Your task to perform on an android device: Add "macbook air" to the cart on amazon Image 0: 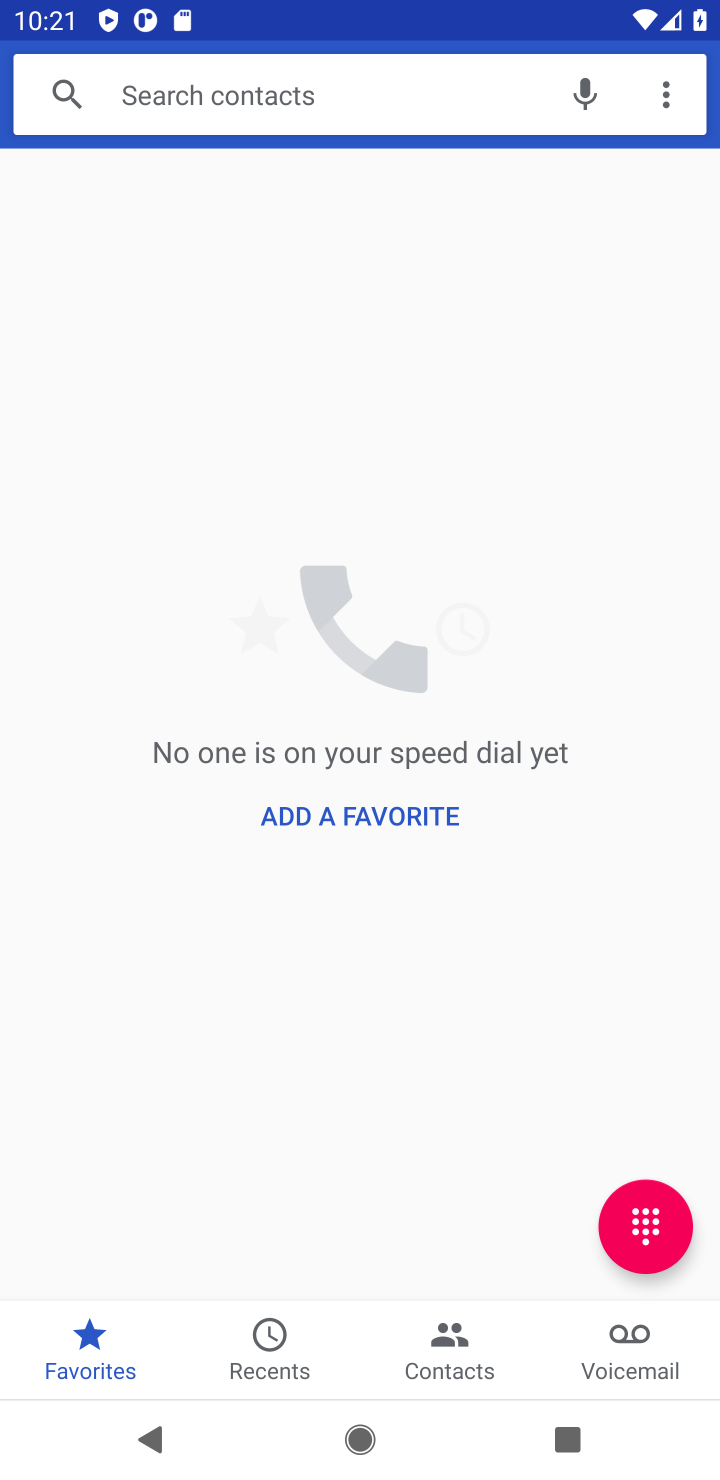
Step 0: press home button
Your task to perform on an android device: Add "macbook air" to the cart on amazon Image 1: 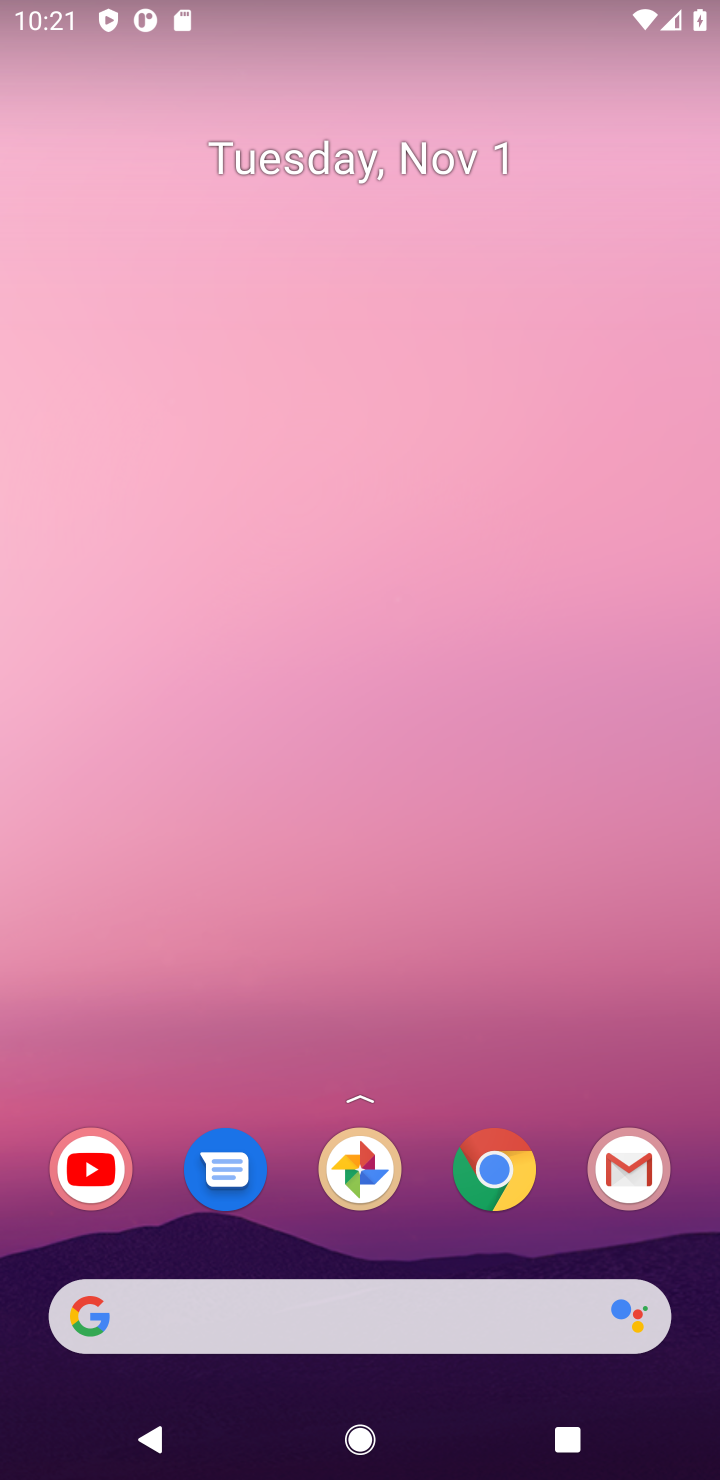
Step 1: click (486, 1177)
Your task to perform on an android device: Add "macbook air" to the cart on amazon Image 2: 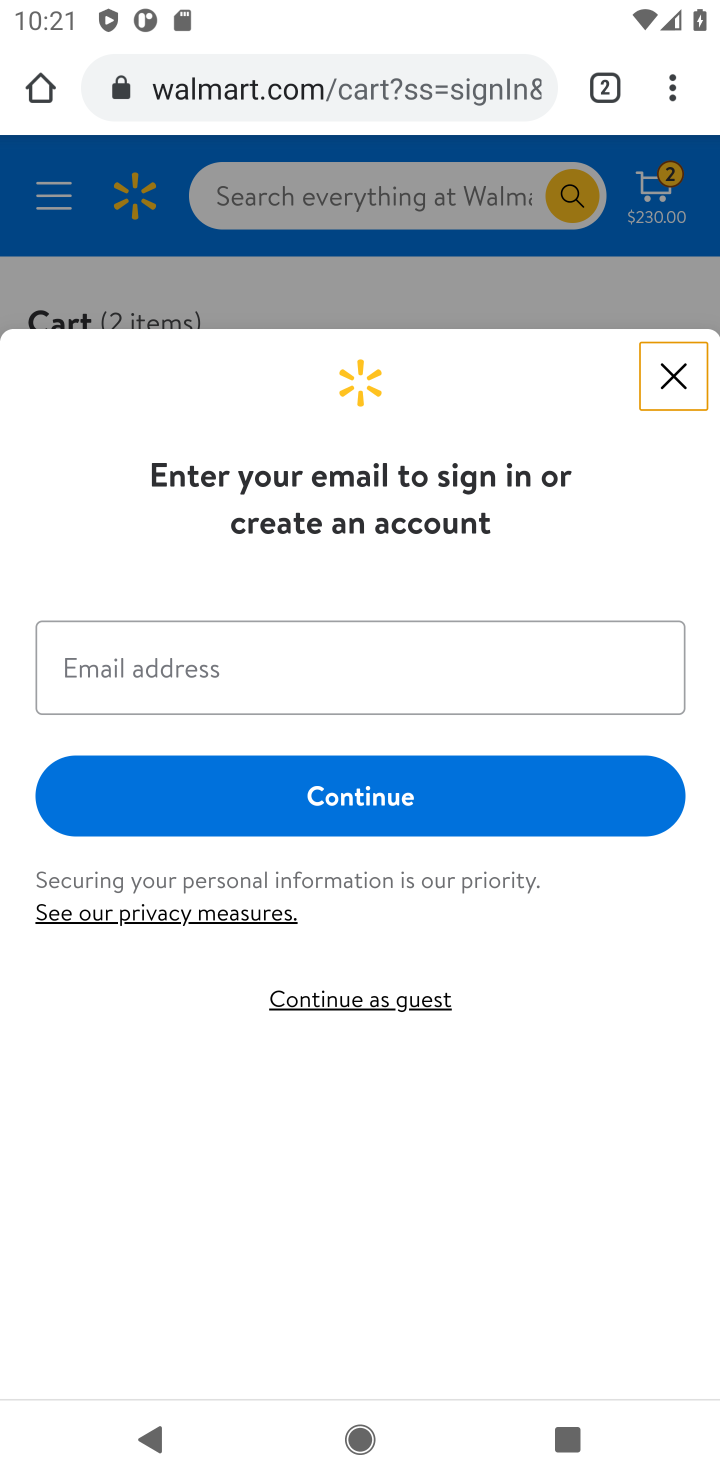
Step 2: click (401, 72)
Your task to perform on an android device: Add "macbook air" to the cart on amazon Image 3: 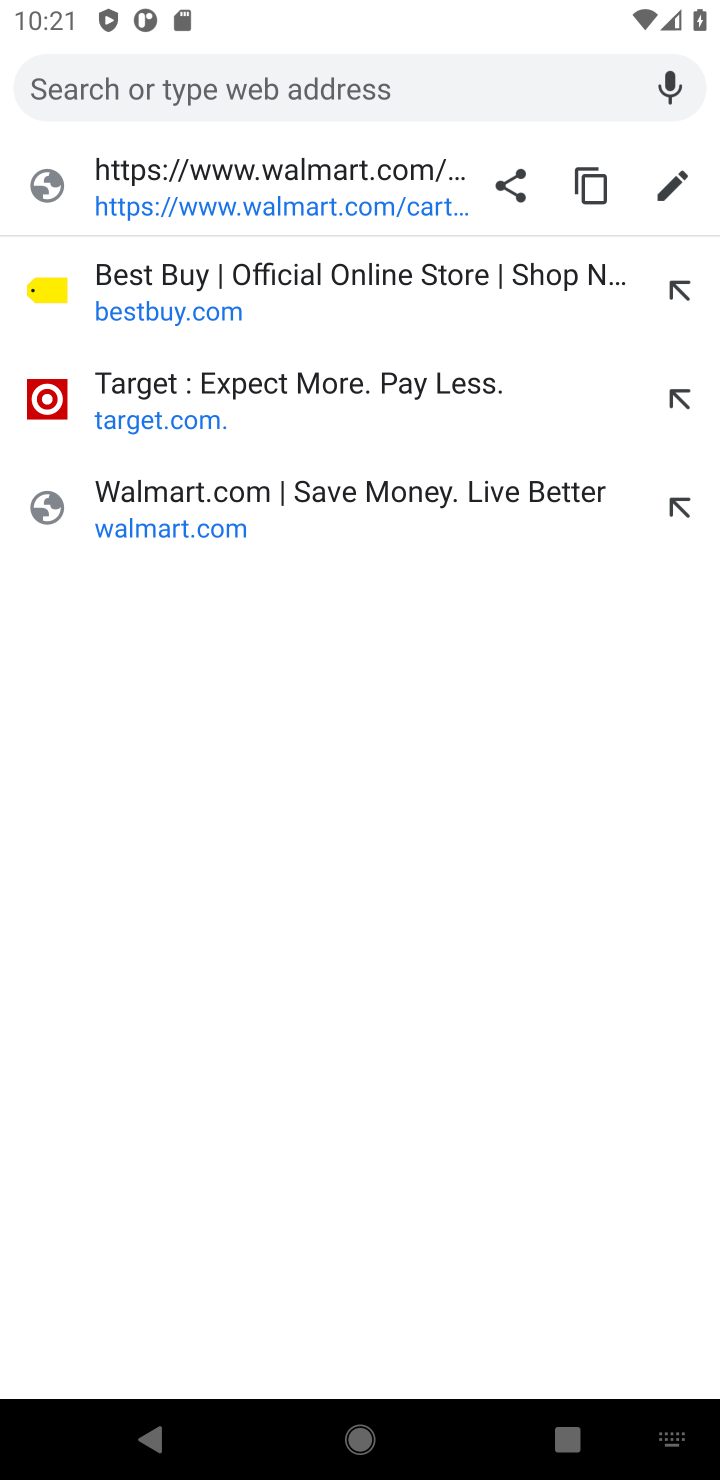
Step 3: type "amazon"
Your task to perform on an android device: Add "macbook air" to the cart on amazon Image 4: 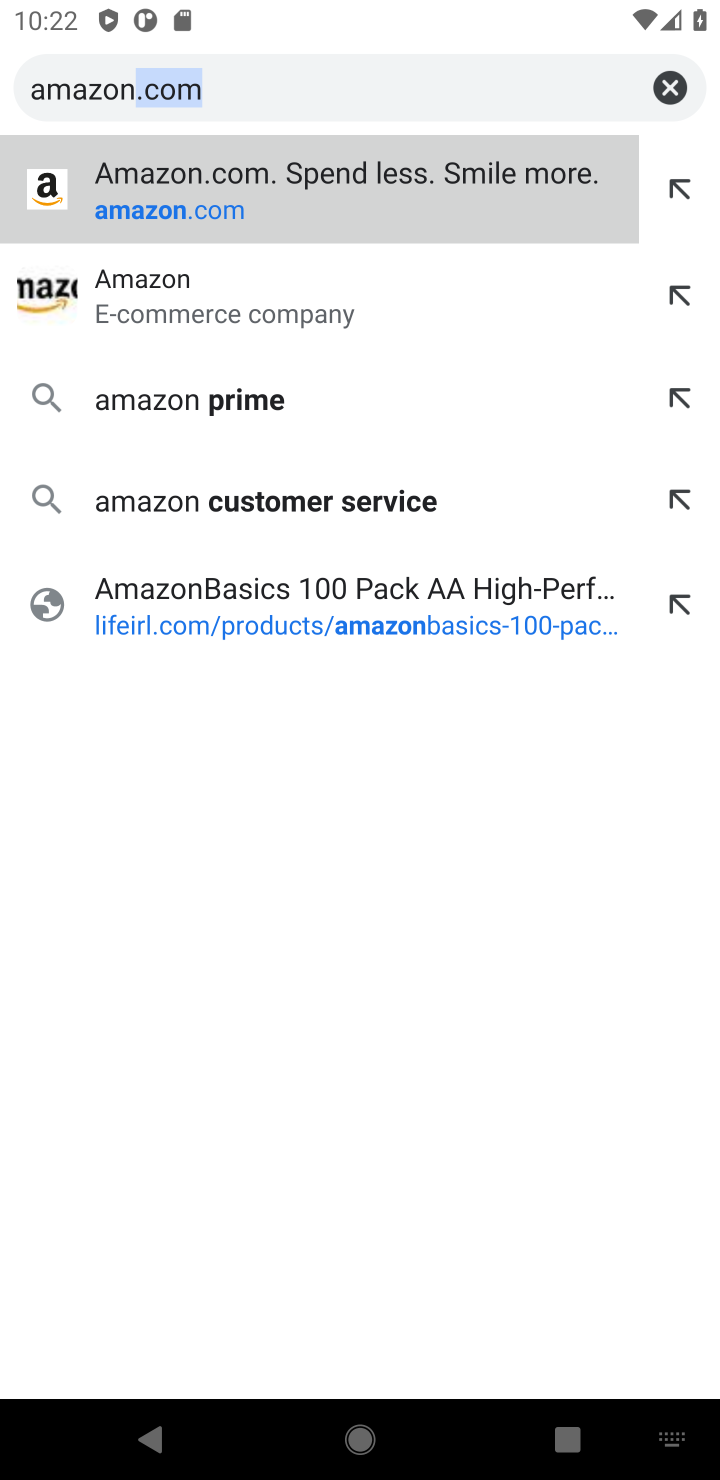
Step 4: click (233, 88)
Your task to perform on an android device: Add "macbook air" to the cart on amazon Image 5: 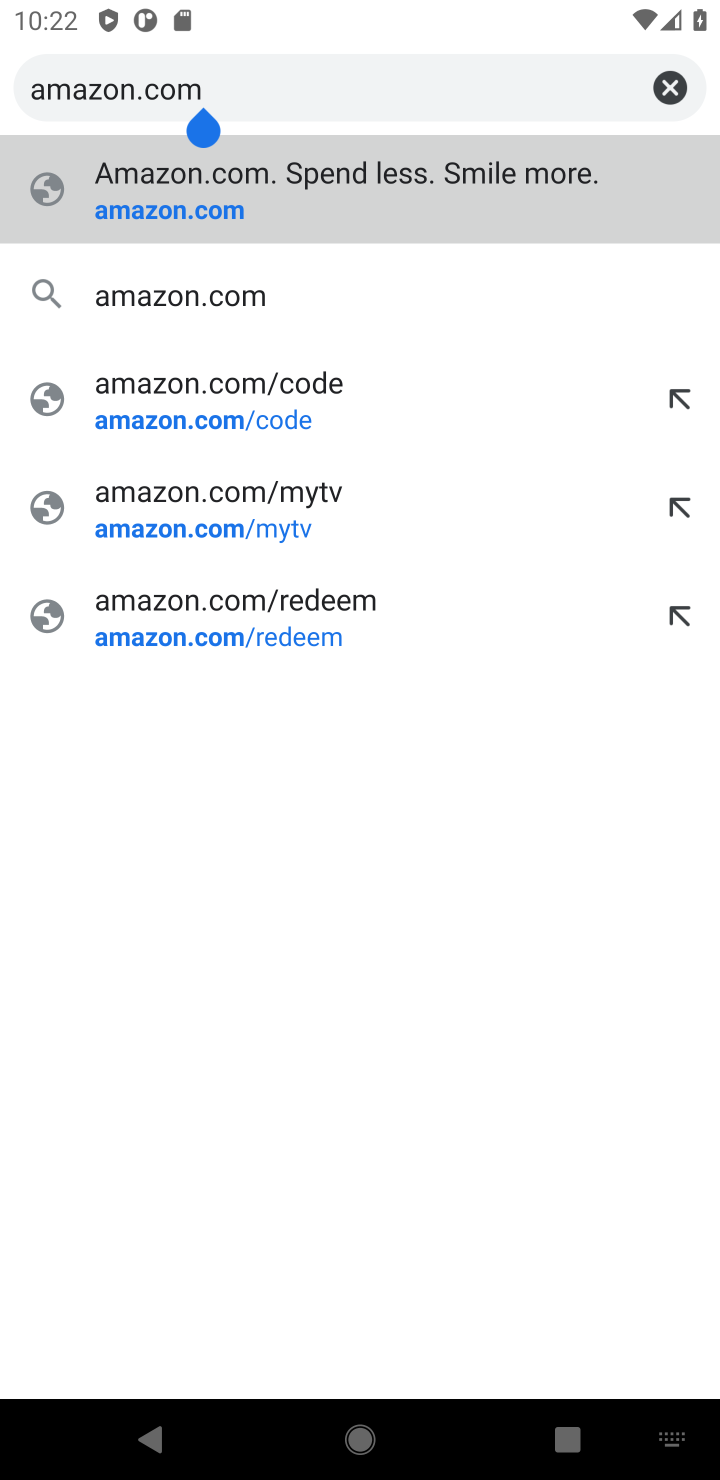
Step 5: click (218, 299)
Your task to perform on an android device: Add "macbook air" to the cart on amazon Image 6: 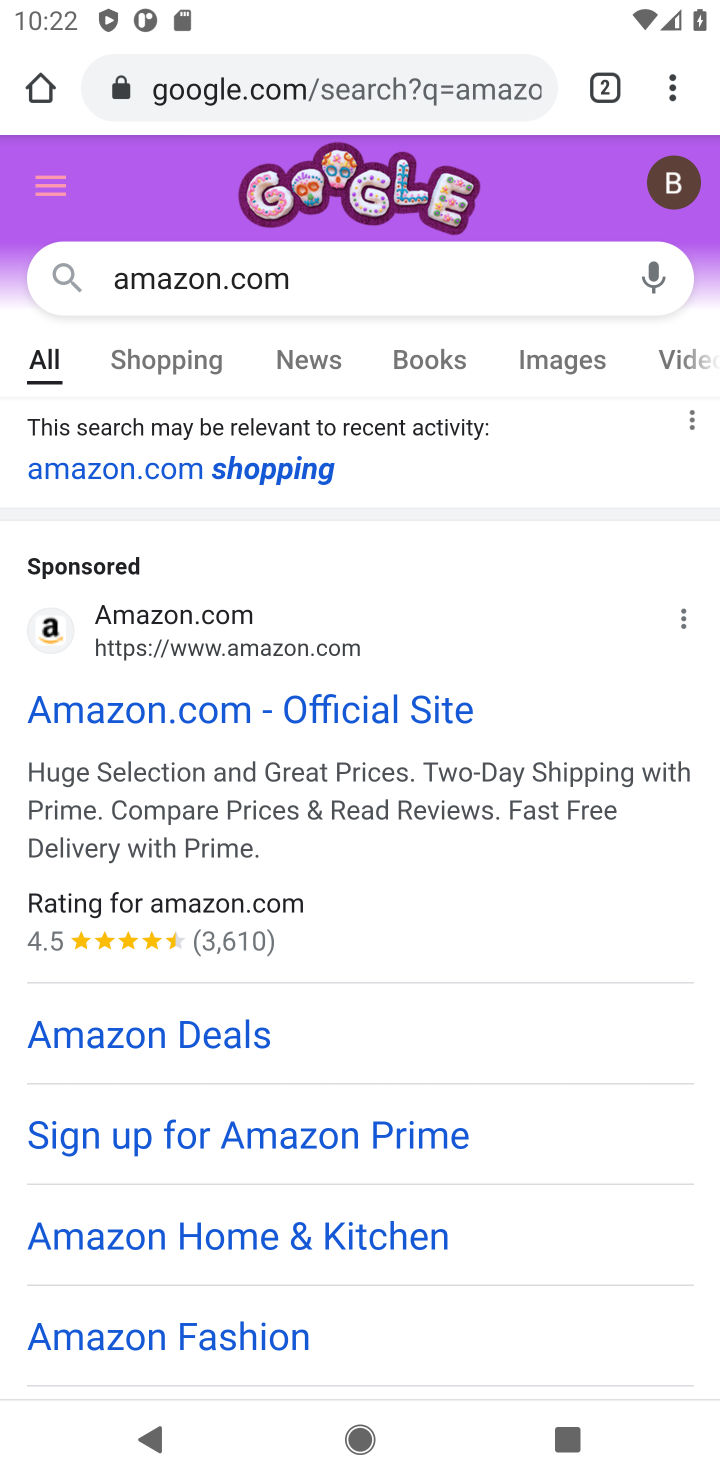
Step 6: click (168, 614)
Your task to perform on an android device: Add "macbook air" to the cart on amazon Image 7: 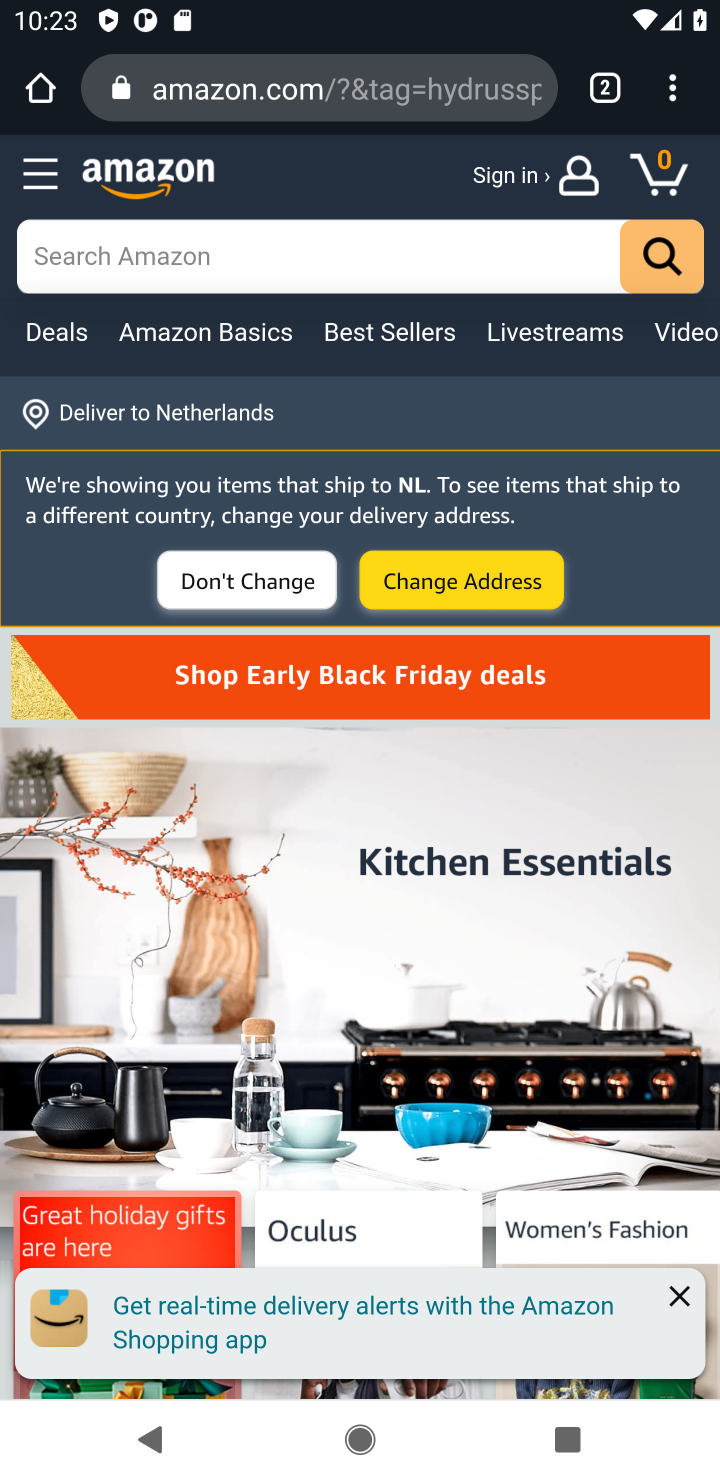
Step 7: click (376, 257)
Your task to perform on an android device: Add "macbook air" to the cart on amazon Image 8: 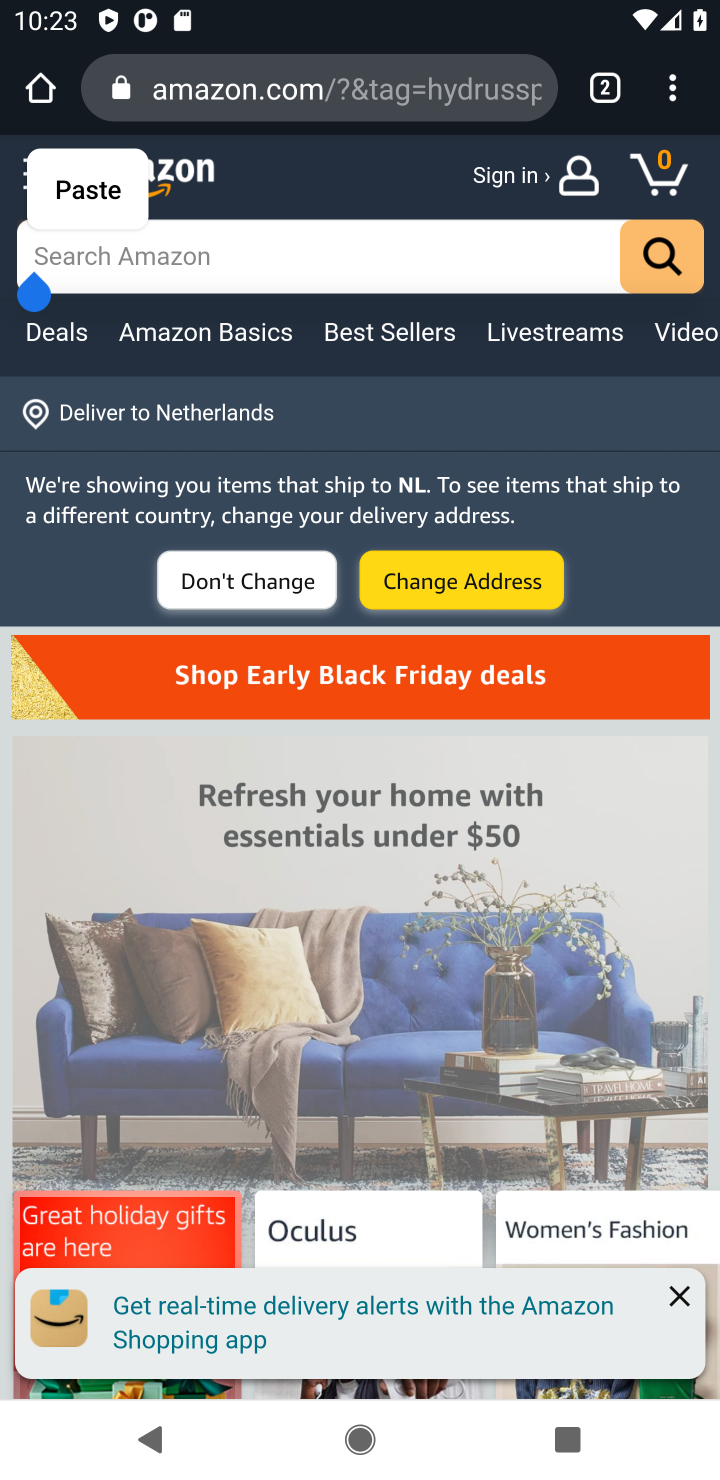
Step 8: type "macbook air"
Your task to perform on an android device: Add "macbook air" to the cart on amazon Image 9: 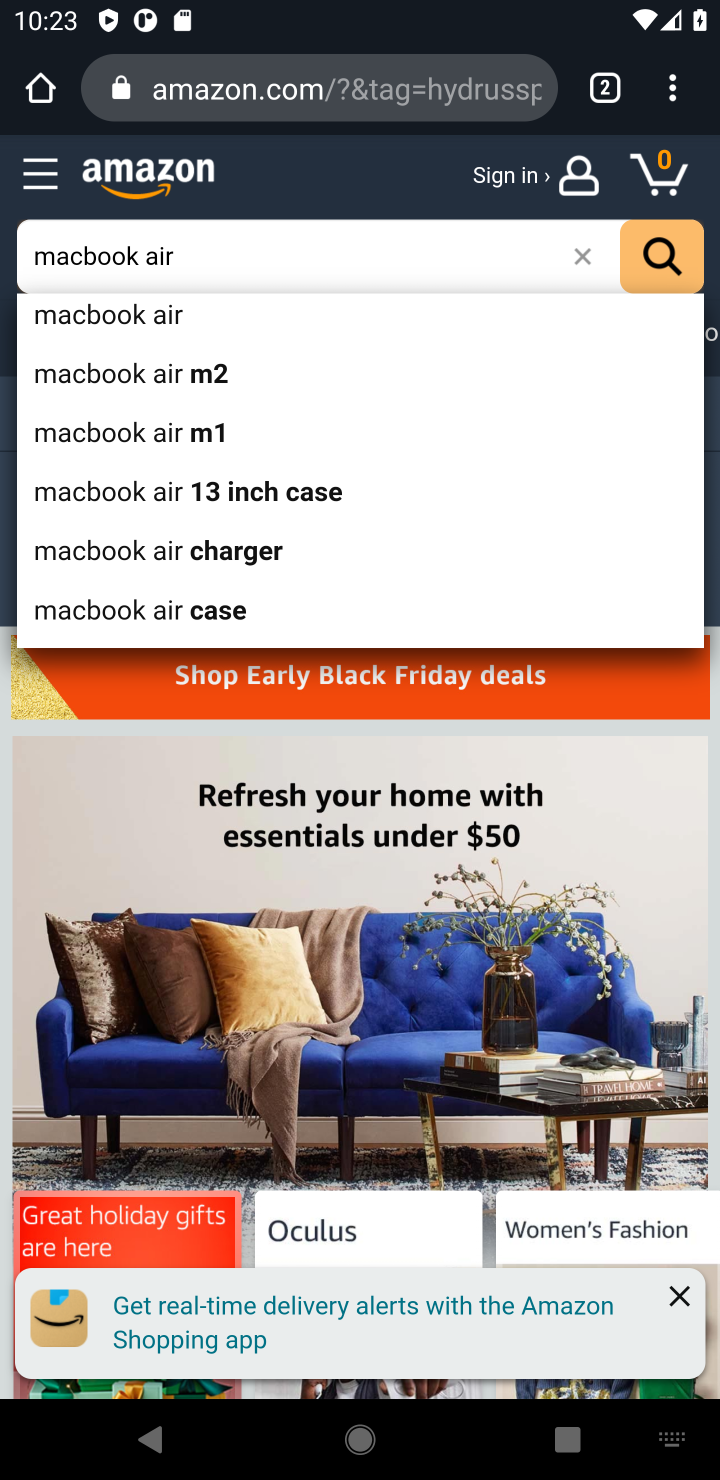
Step 9: click (156, 311)
Your task to perform on an android device: Add "macbook air" to the cart on amazon Image 10: 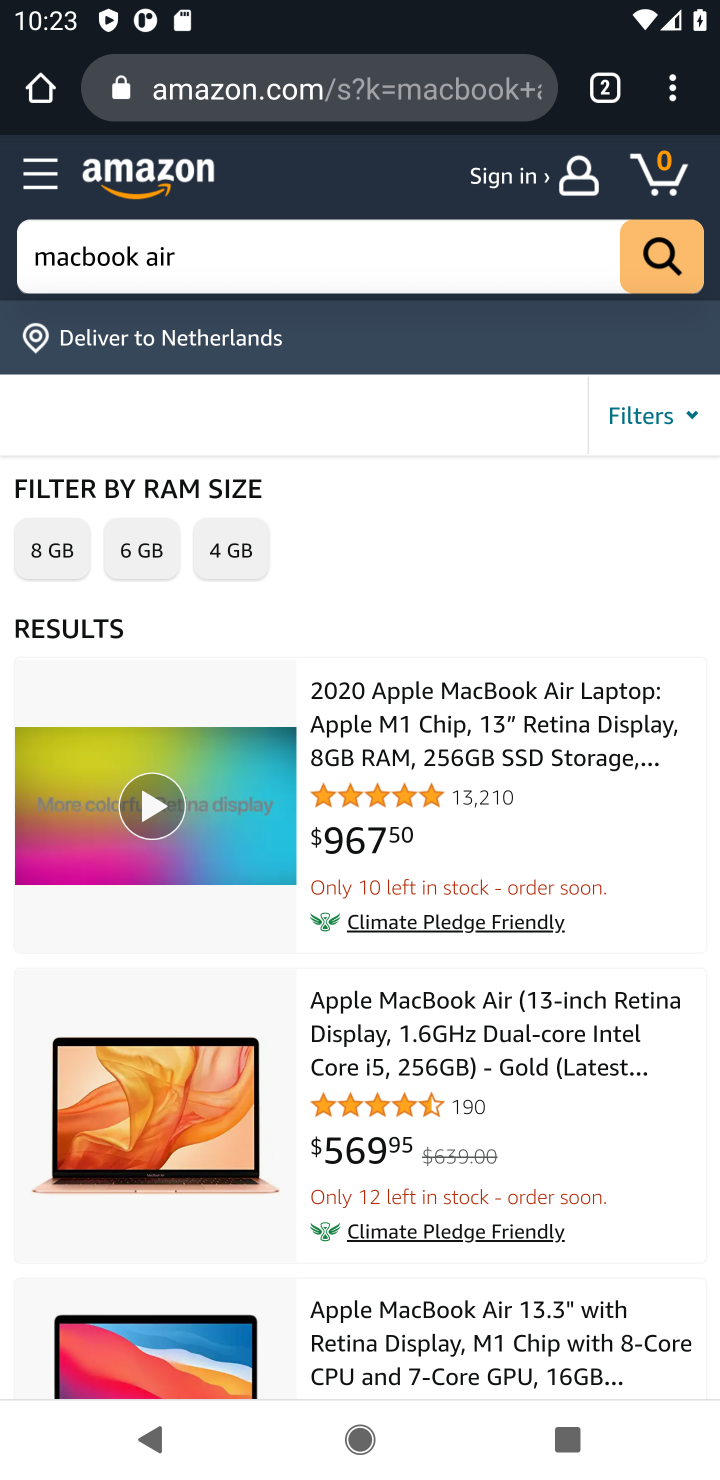
Step 10: click (142, 1090)
Your task to perform on an android device: Add "macbook air" to the cart on amazon Image 11: 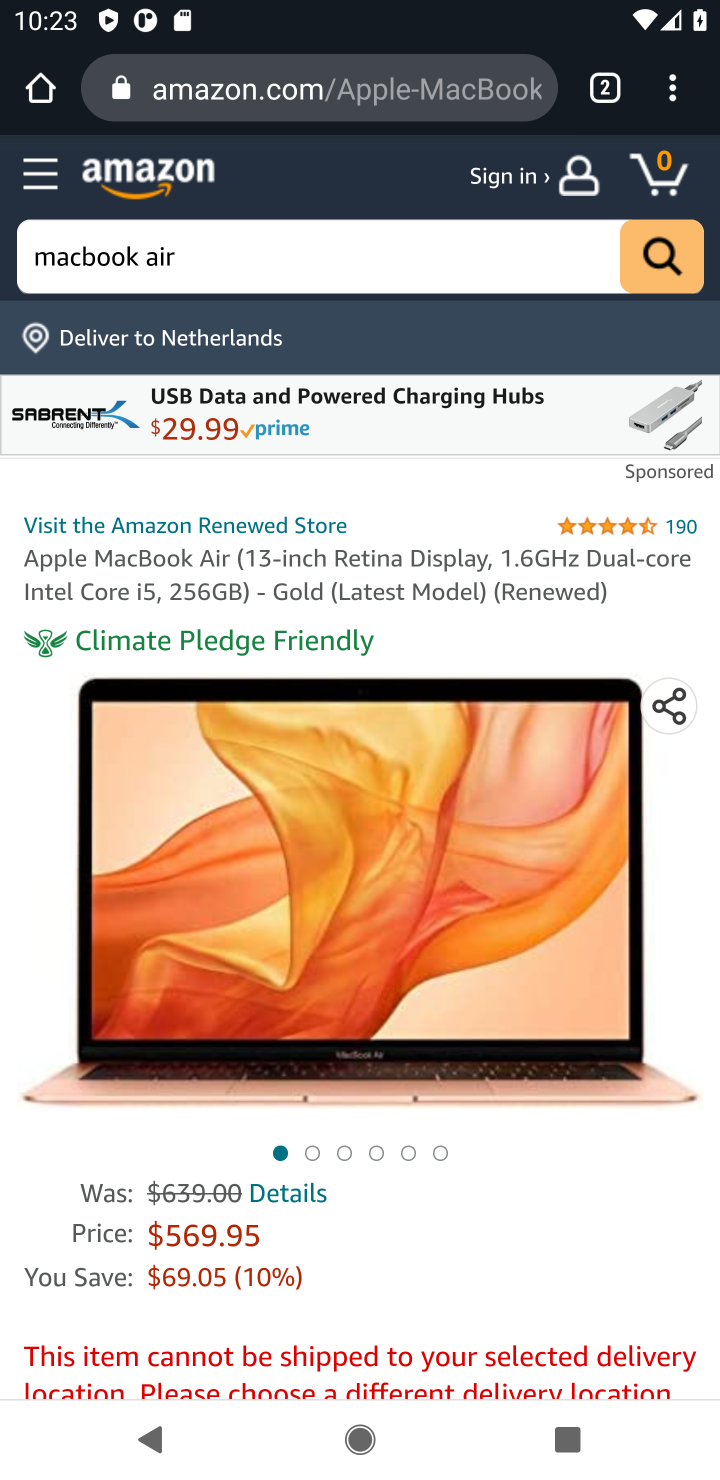
Step 11: drag from (523, 961) to (516, 465)
Your task to perform on an android device: Add "macbook air" to the cart on amazon Image 12: 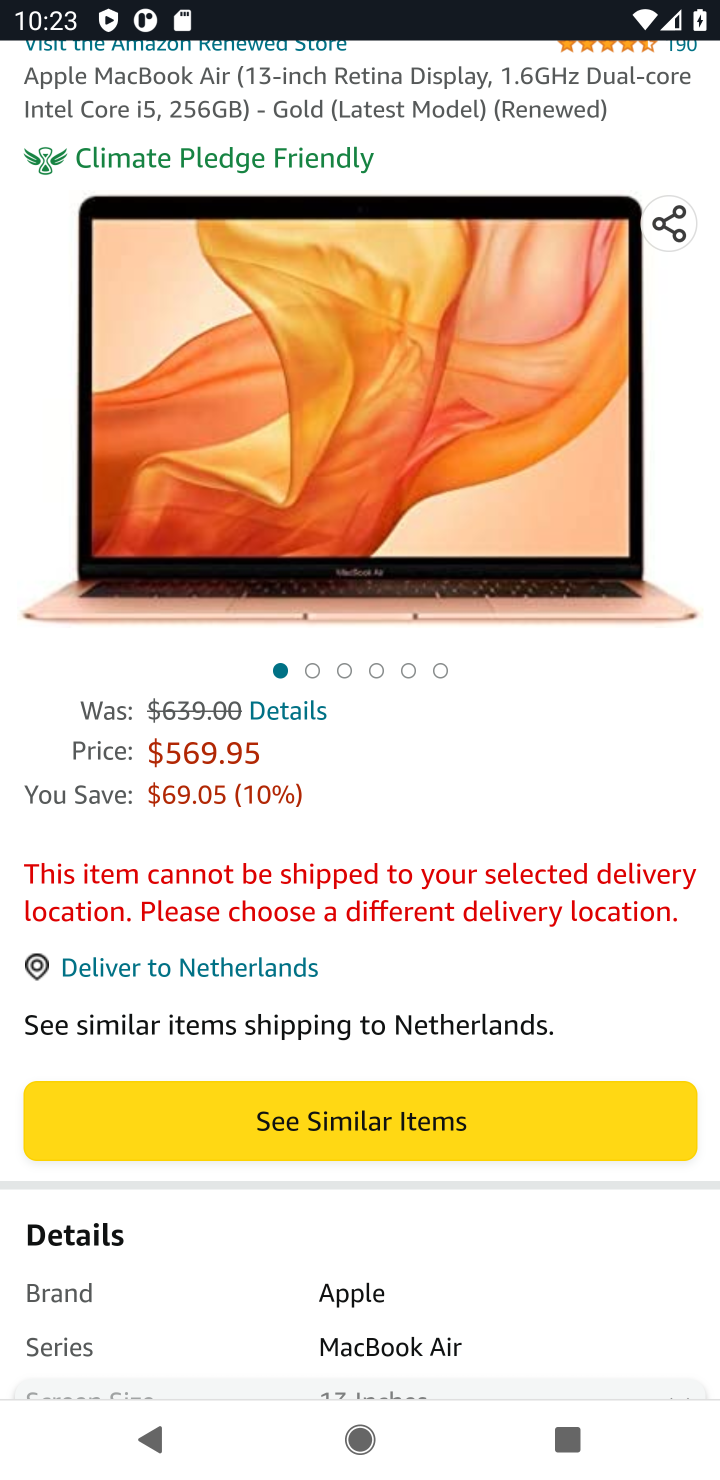
Step 12: drag from (448, 1003) to (423, 408)
Your task to perform on an android device: Add "macbook air" to the cart on amazon Image 13: 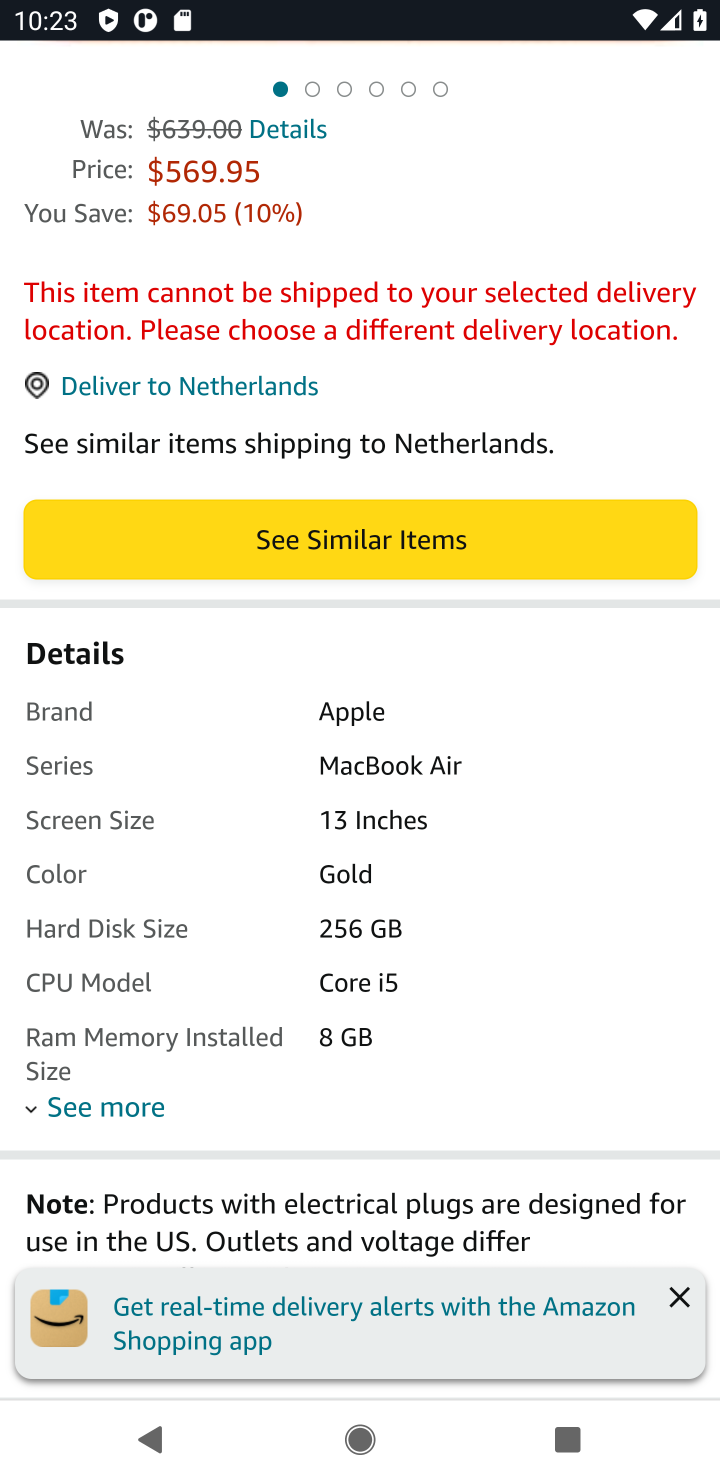
Step 13: drag from (556, 996) to (522, 425)
Your task to perform on an android device: Add "macbook air" to the cart on amazon Image 14: 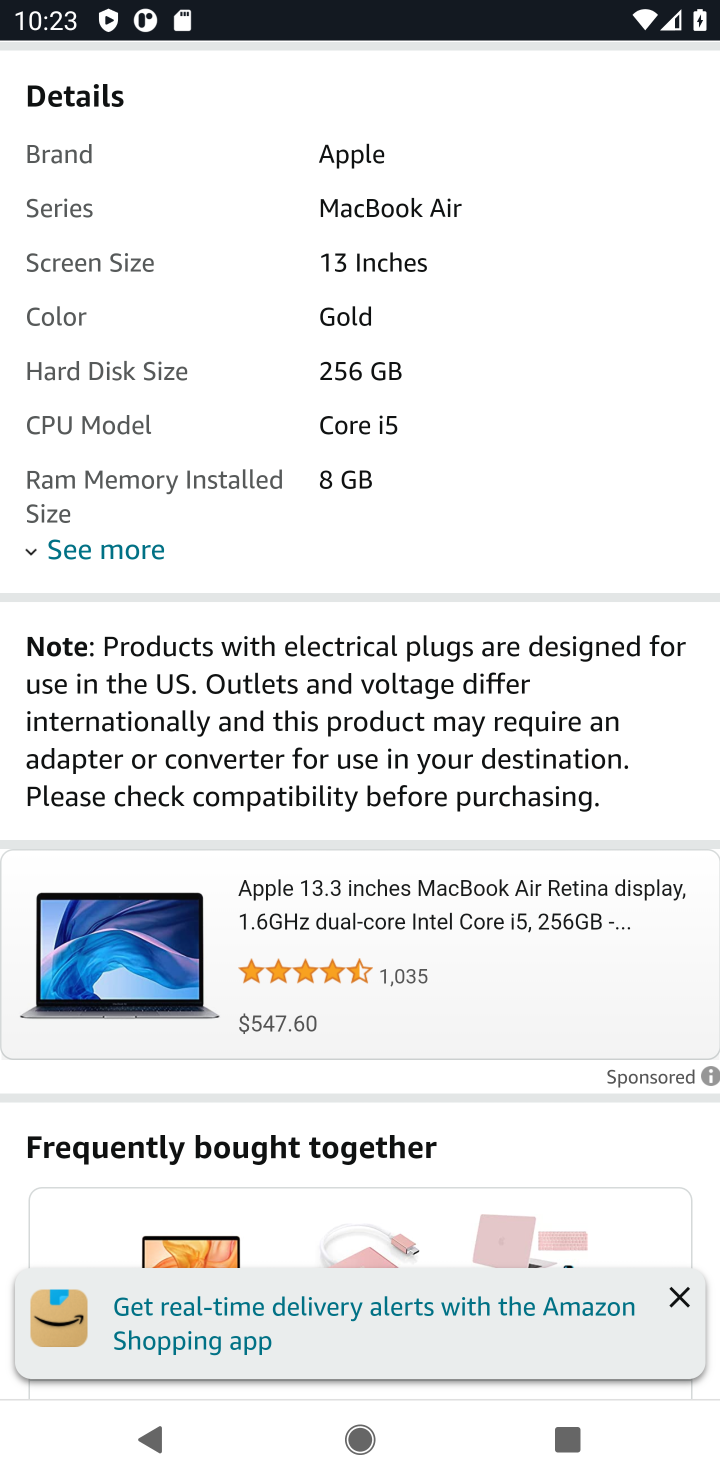
Step 14: press back button
Your task to perform on an android device: Add "macbook air" to the cart on amazon Image 15: 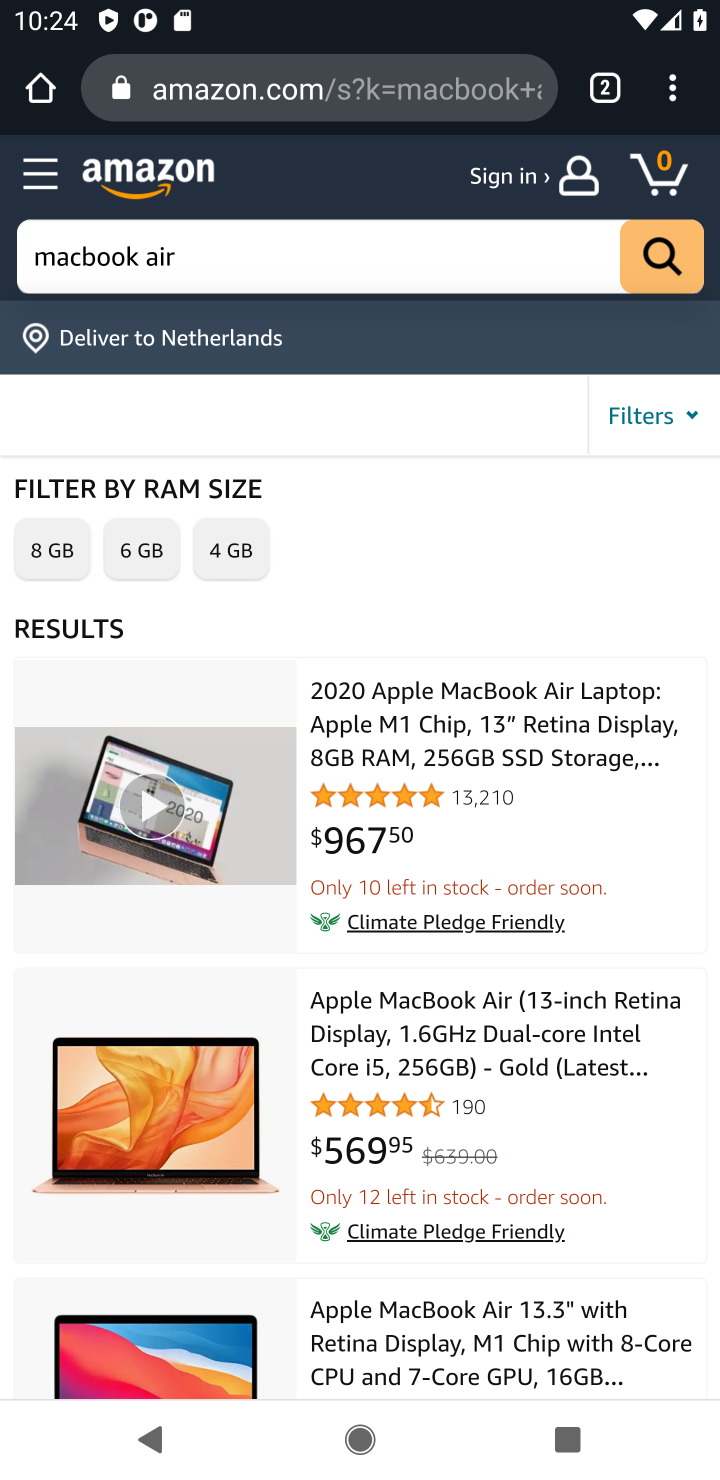
Step 15: click (478, 1315)
Your task to perform on an android device: Add "macbook air" to the cart on amazon Image 16: 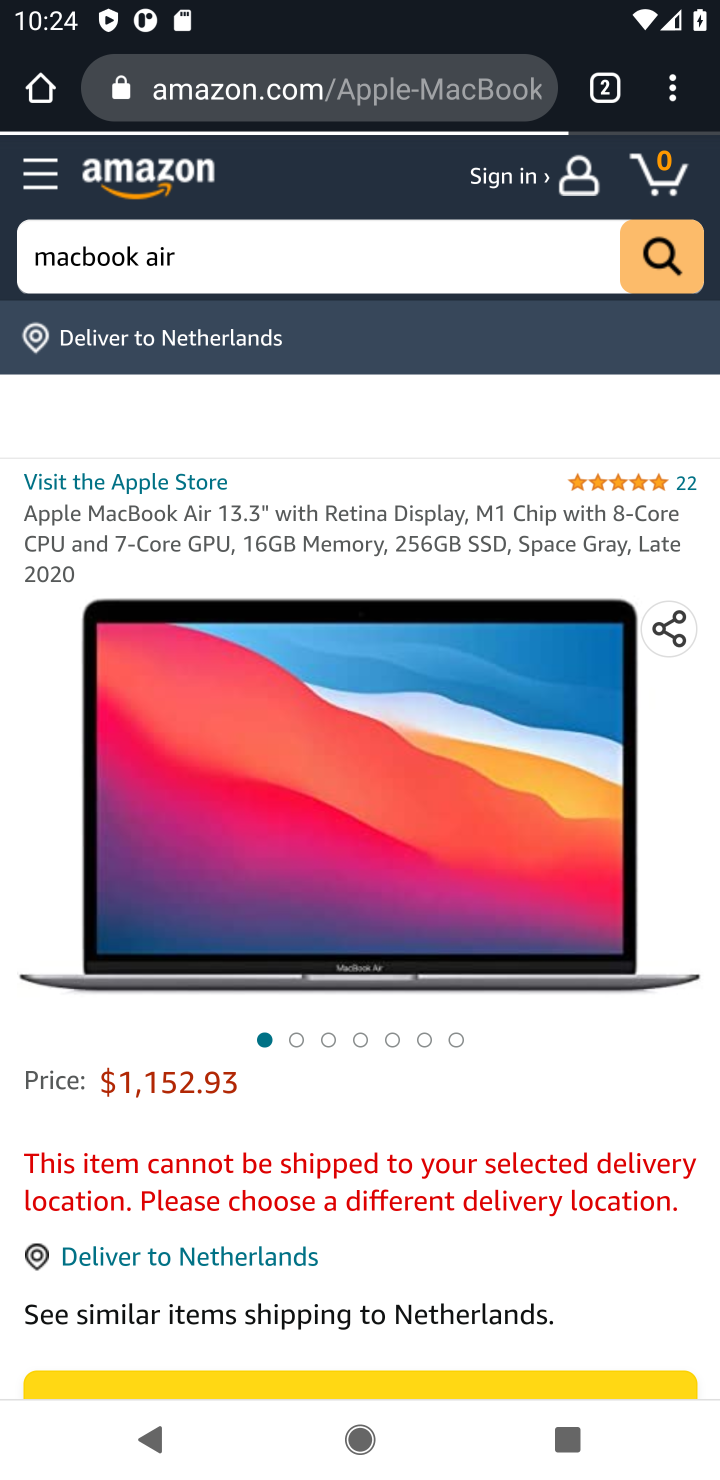
Step 16: drag from (582, 1224) to (543, 547)
Your task to perform on an android device: Add "macbook air" to the cart on amazon Image 17: 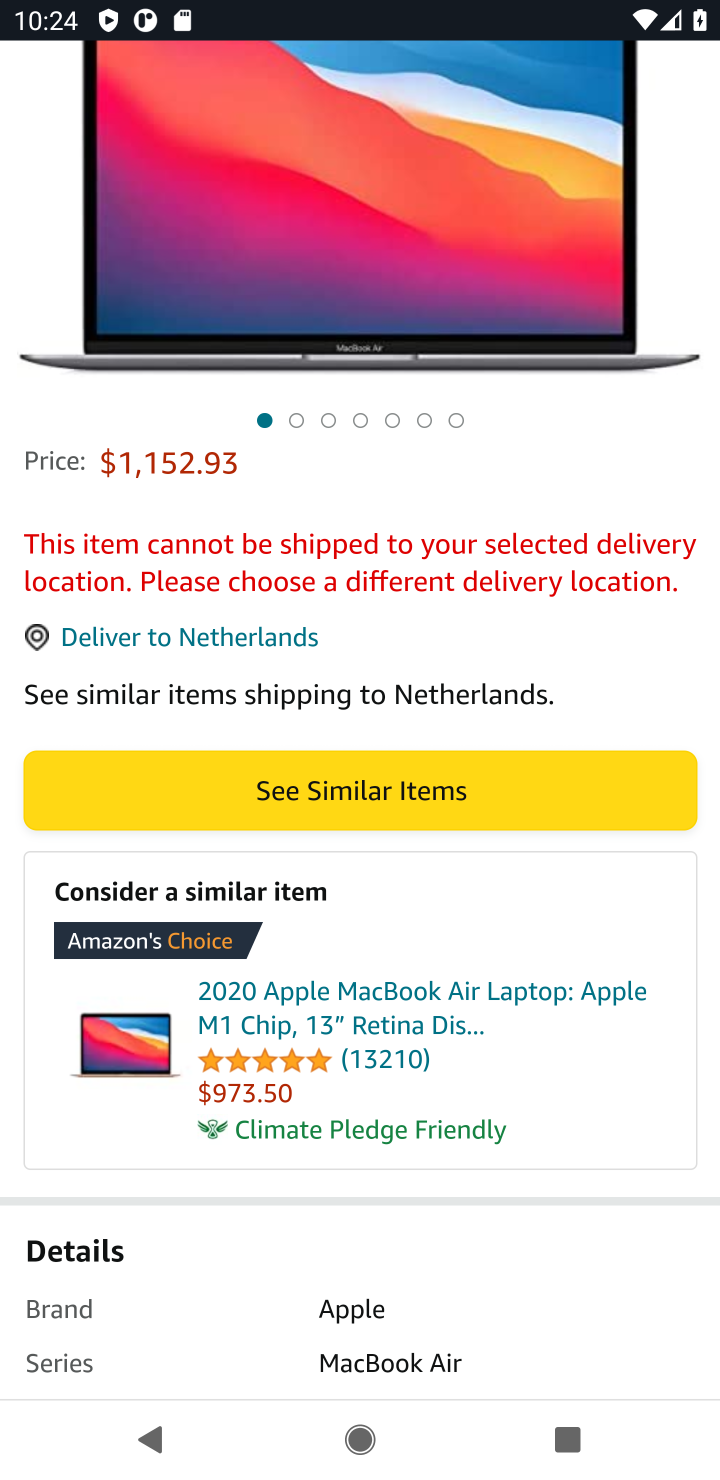
Step 17: press back button
Your task to perform on an android device: Add "macbook air" to the cart on amazon Image 18: 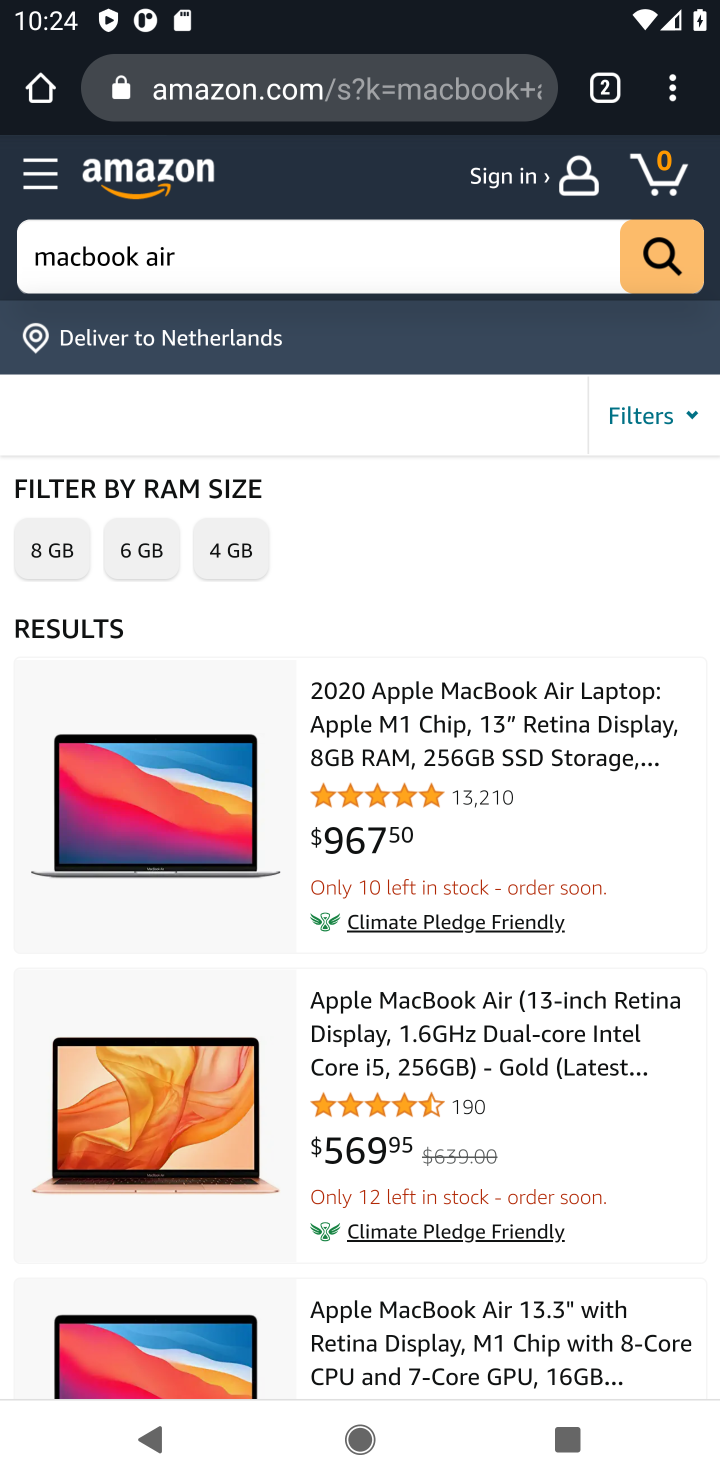
Step 18: drag from (535, 1000) to (514, 589)
Your task to perform on an android device: Add "macbook air" to the cart on amazon Image 19: 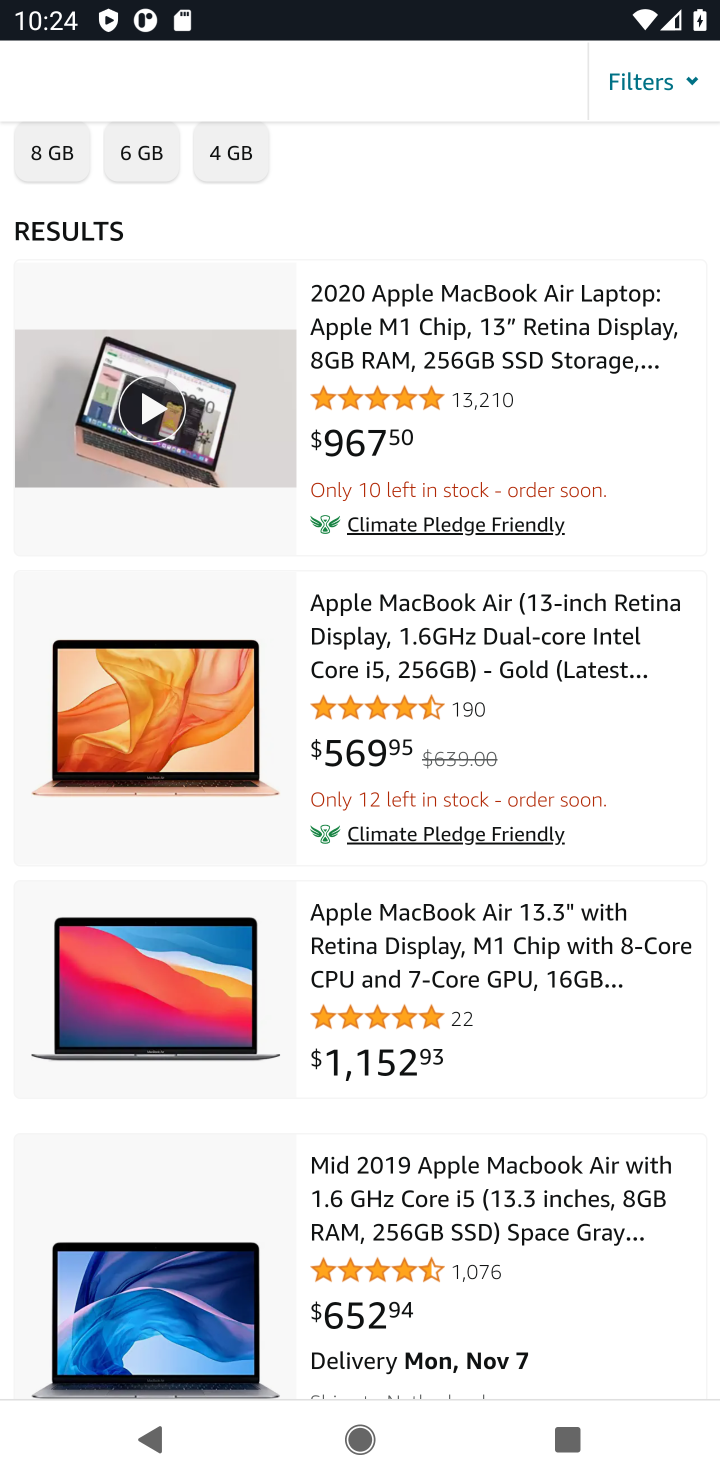
Step 19: drag from (524, 1126) to (502, 500)
Your task to perform on an android device: Add "macbook air" to the cart on amazon Image 20: 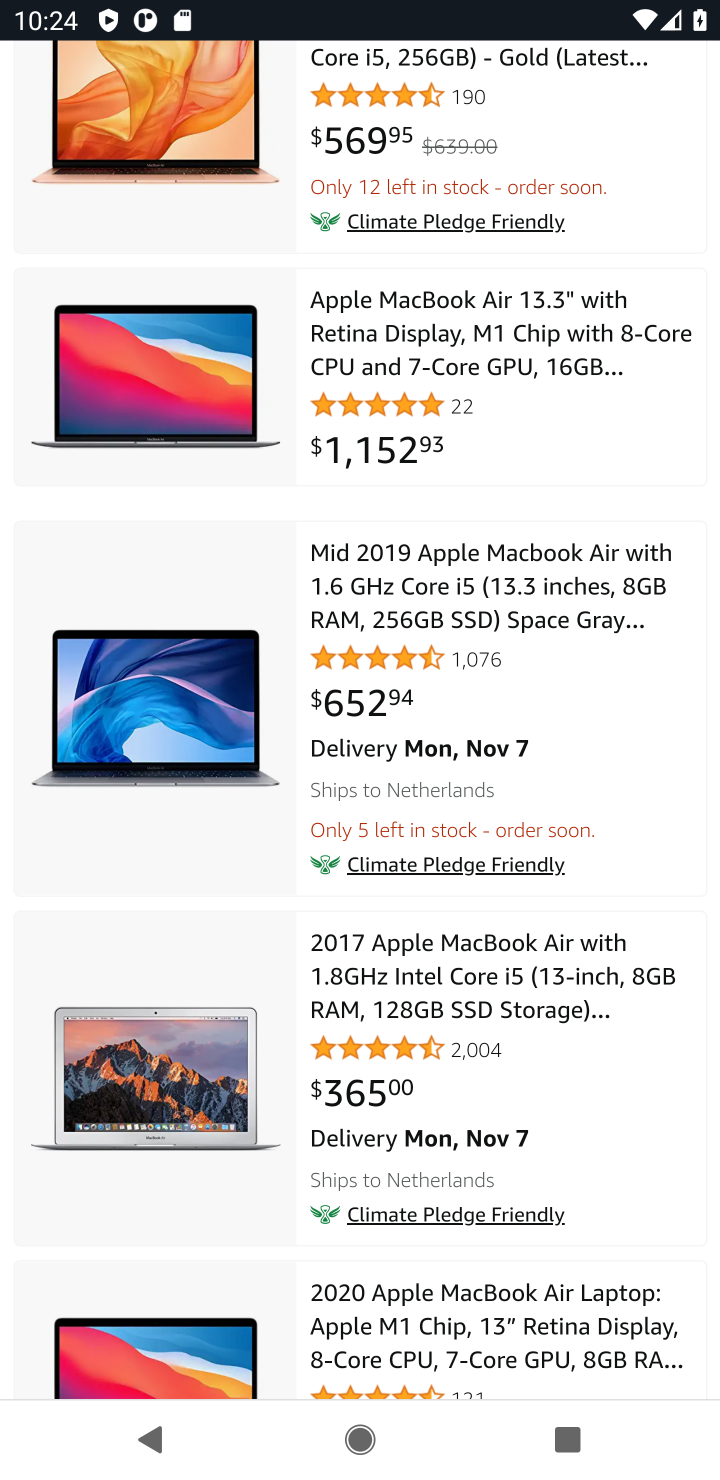
Step 20: drag from (505, 1209) to (528, 1350)
Your task to perform on an android device: Add "macbook air" to the cart on amazon Image 21: 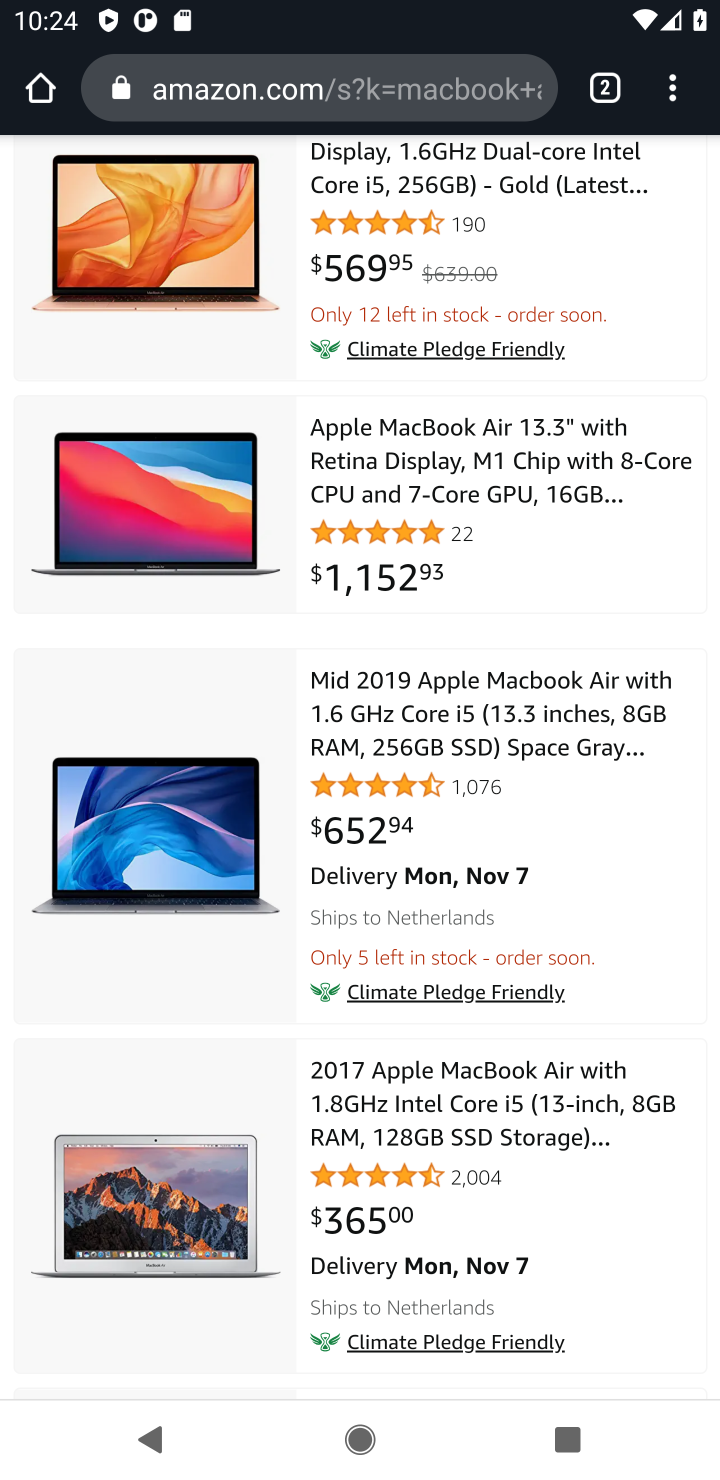
Step 21: drag from (479, 487) to (534, 1185)
Your task to perform on an android device: Add "macbook air" to the cart on amazon Image 22: 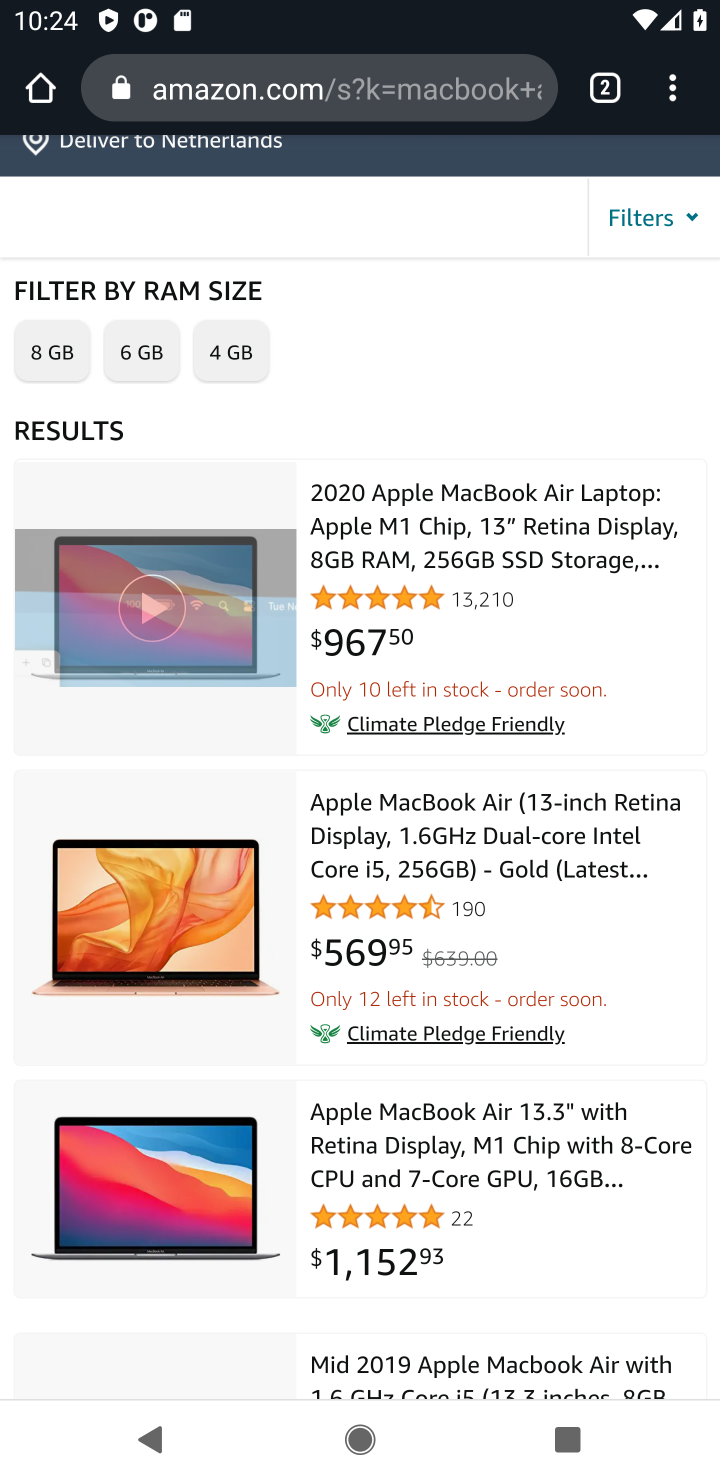
Step 22: click (167, 593)
Your task to perform on an android device: Add "macbook air" to the cart on amazon Image 23: 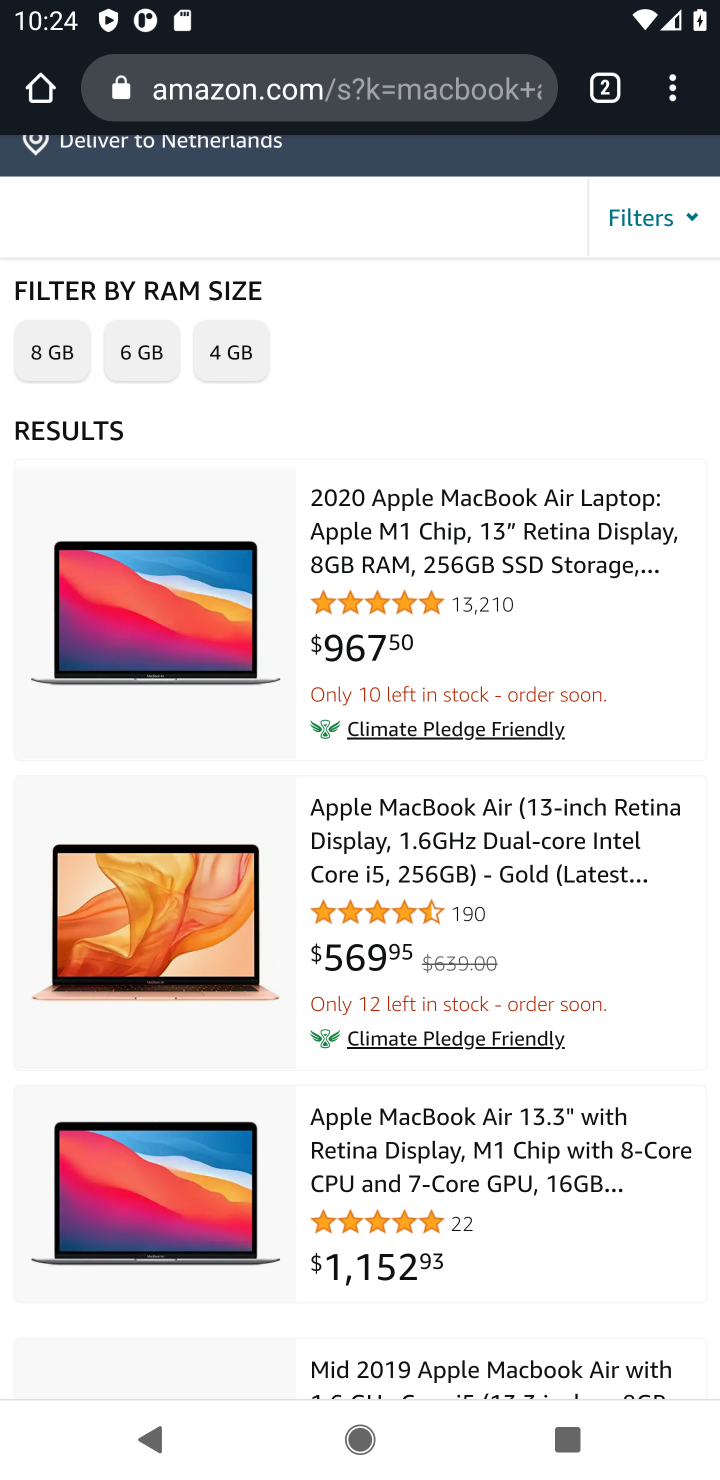
Step 23: click (203, 607)
Your task to perform on an android device: Add "macbook air" to the cart on amazon Image 24: 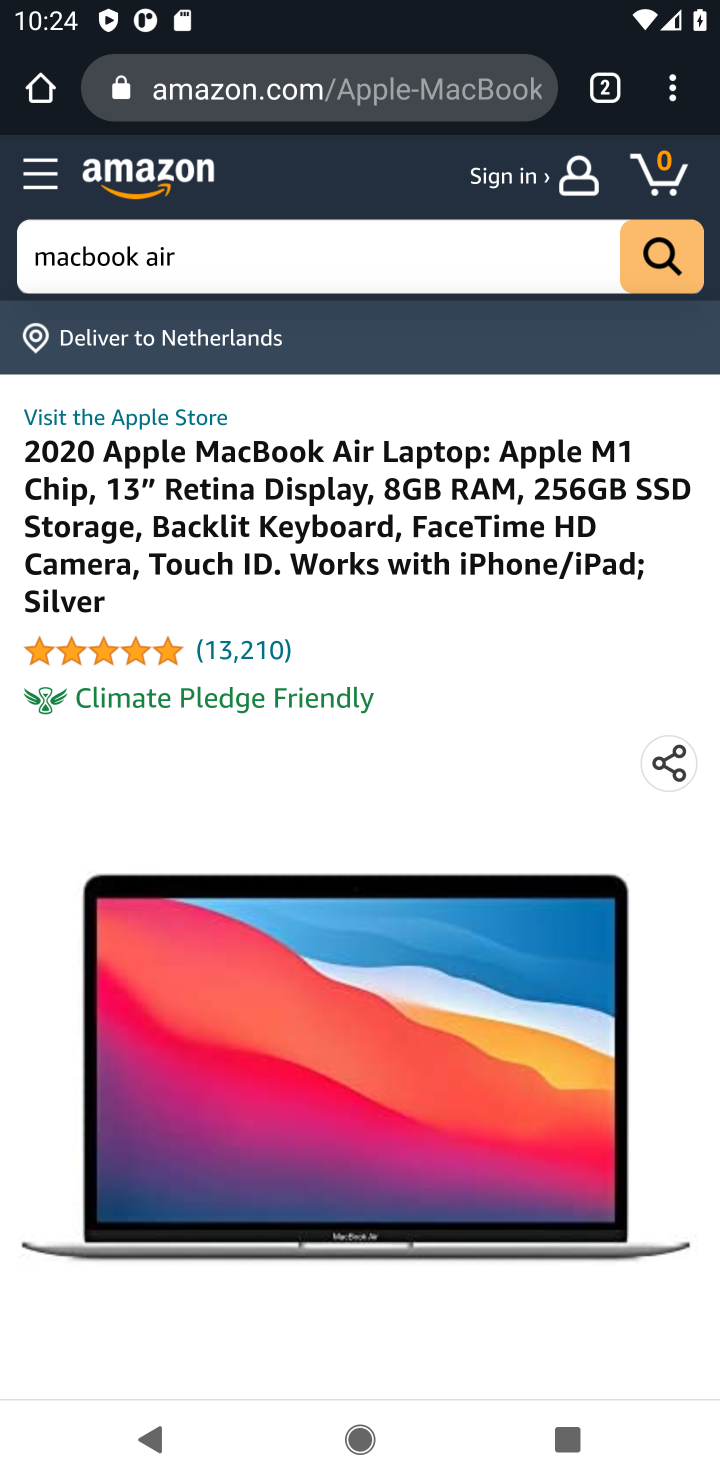
Step 24: task complete